Your task to perform on an android device: Open Google Image 0: 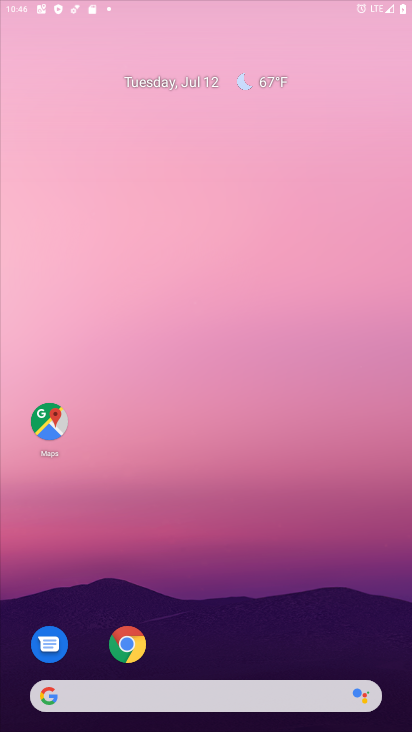
Step 0: drag from (196, 628) to (276, 209)
Your task to perform on an android device: Open Google Image 1: 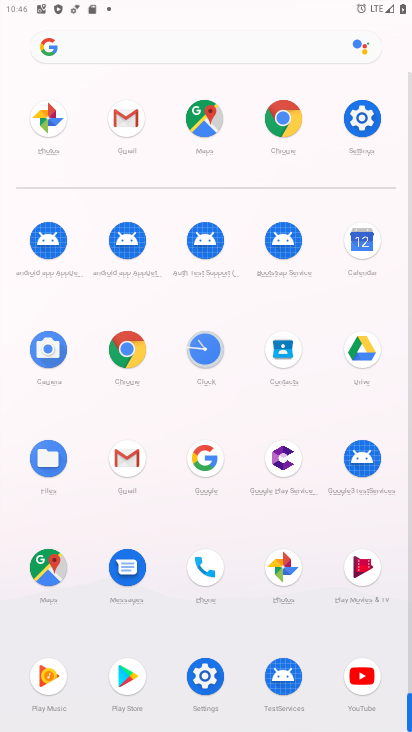
Step 1: click (203, 453)
Your task to perform on an android device: Open Google Image 2: 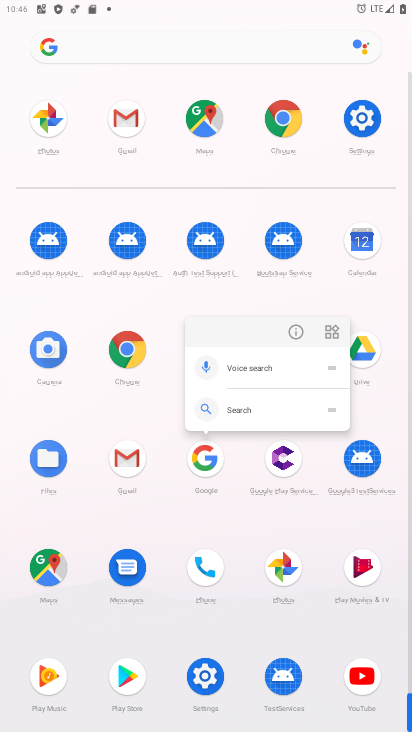
Step 2: click (295, 335)
Your task to perform on an android device: Open Google Image 3: 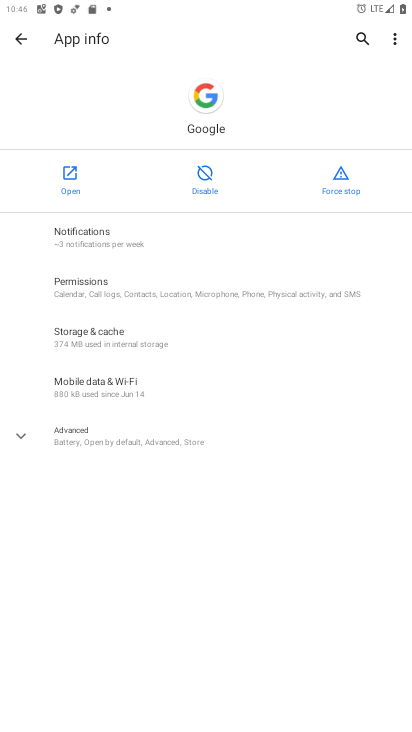
Step 3: click (61, 183)
Your task to perform on an android device: Open Google Image 4: 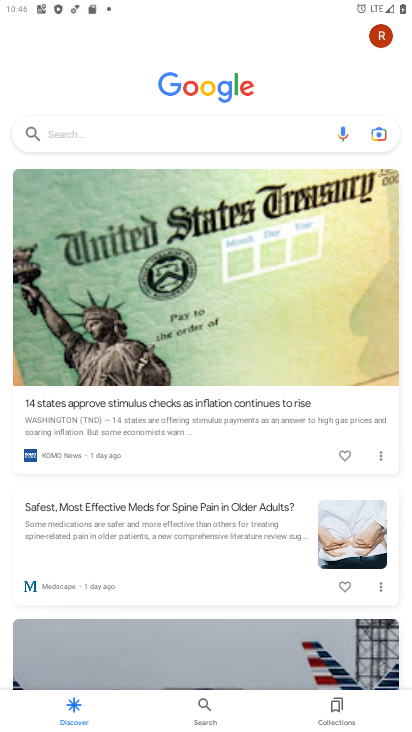
Step 4: task complete